Your task to perform on an android device: manage bookmarks in the chrome app Image 0: 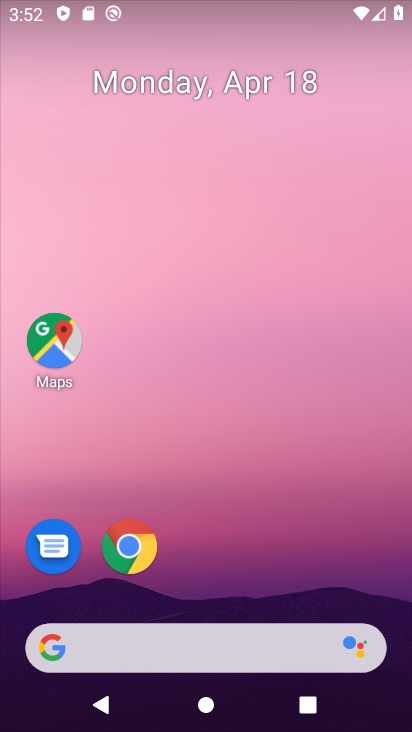
Step 0: drag from (272, 573) to (206, 230)
Your task to perform on an android device: manage bookmarks in the chrome app Image 1: 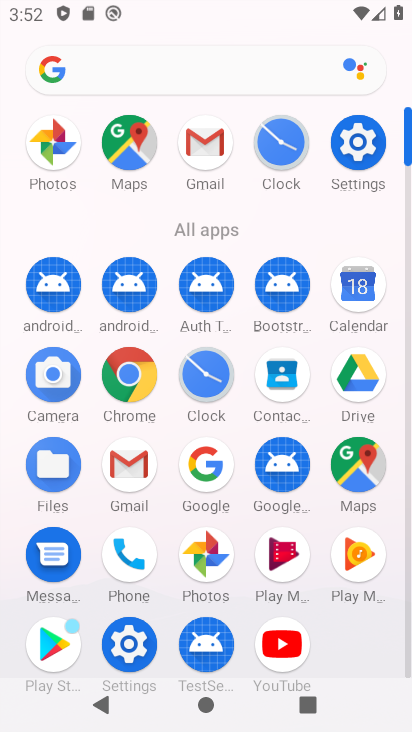
Step 1: click (128, 376)
Your task to perform on an android device: manage bookmarks in the chrome app Image 2: 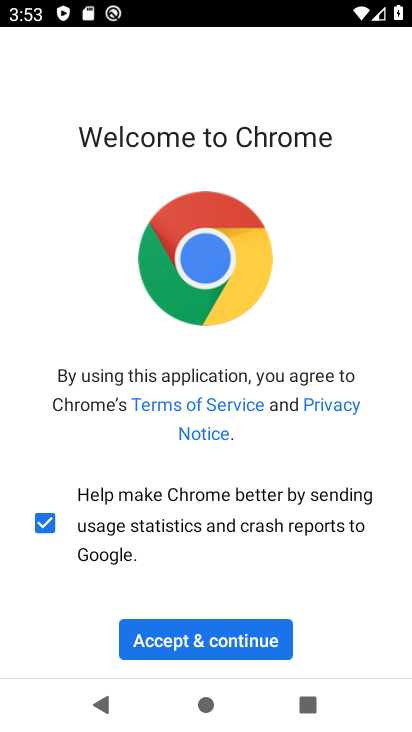
Step 2: click (194, 636)
Your task to perform on an android device: manage bookmarks in the chrome app Image 3: 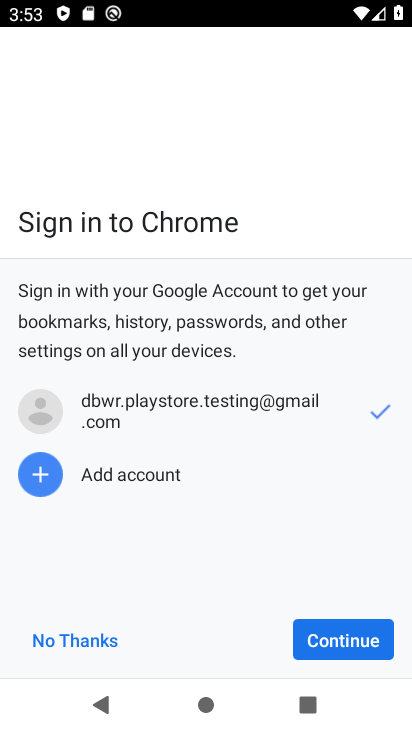
Step 3: click (342, 629)
Your task to perform on an android device: manage bookmarks in the chrome app Image 4: 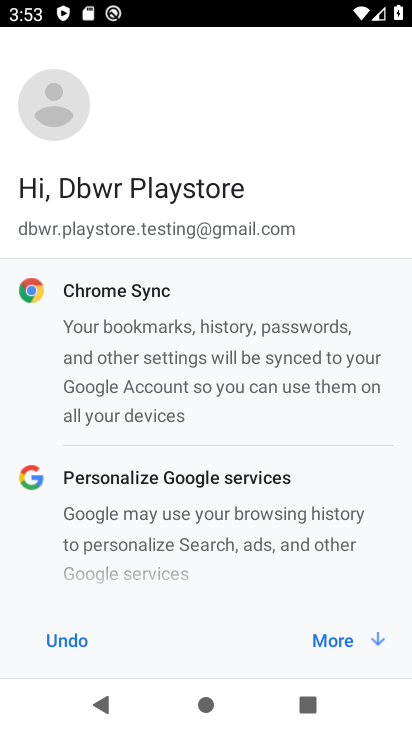
Step 4: click (346, 638)
Your task to perform on an android device: manage bookmarks in the chrome app Image 5: 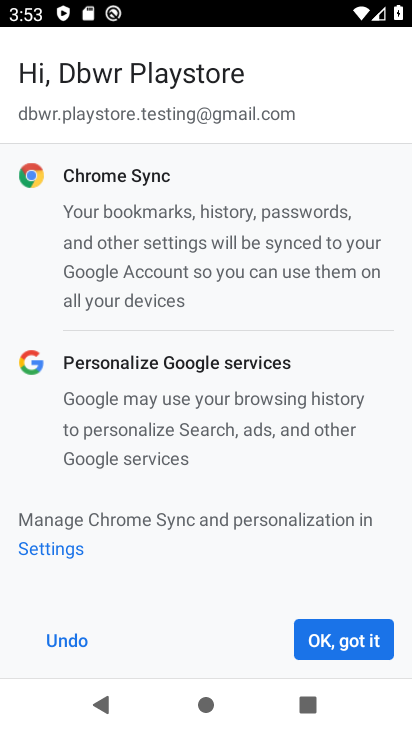
Step 5: click (346, 638)
Your task to perform on an android device: manage bookmarks in the chrome app Image 6: 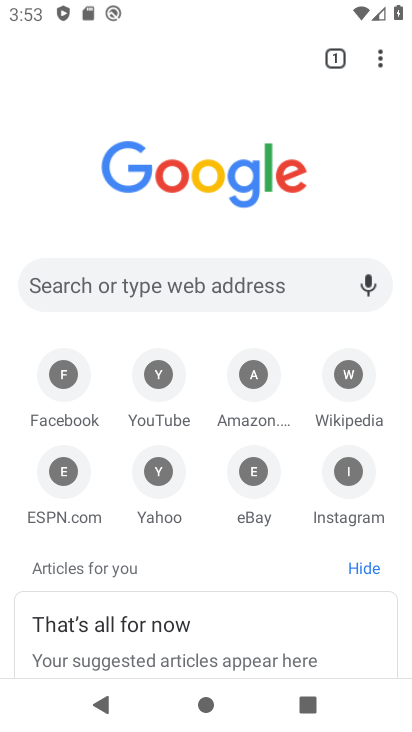
Step 6: click (387, 52)
Your task to perform on an android device: manage bookmarks in the chrome app Image 7: 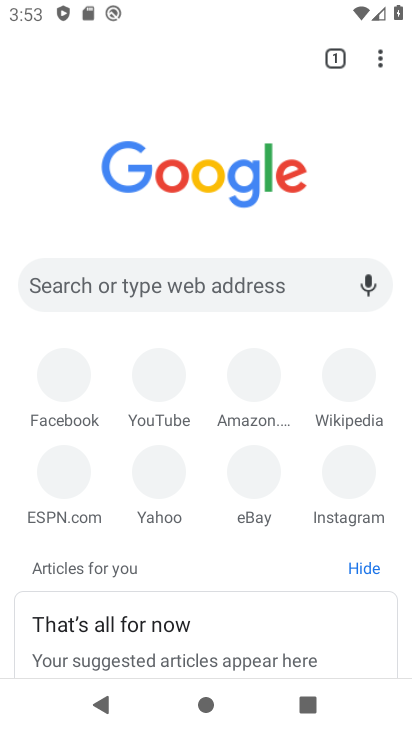
Step 7: click (387, 52)
Your task to perform on an android device: manage bookmarks in the chrome app Image 8: 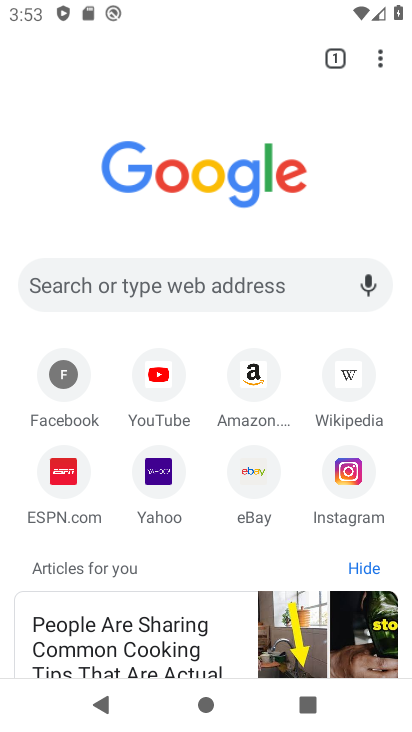
Step 8: click (375, 51)
Your task to perform on an android device: manage bookmarks in the chrome app Image 9: 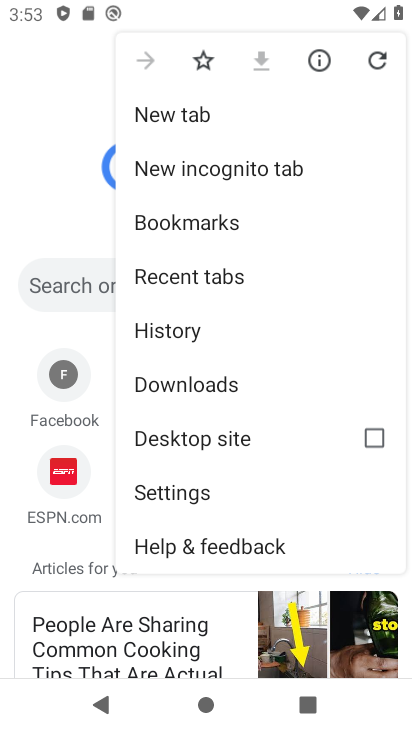
Step 9: click (234, 212)
Your task to perform on an android device: manage bookmarks in the chrome app Image 10: 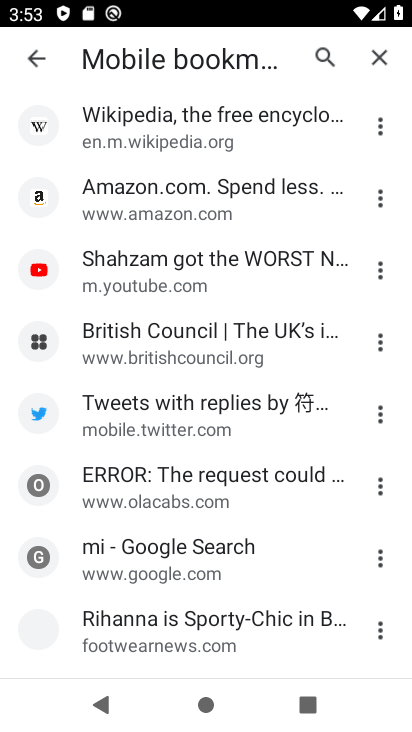
Step 10: click (150, 201)
Your task to perform on an android device: manage bookmarks in the chrome app Image 11: 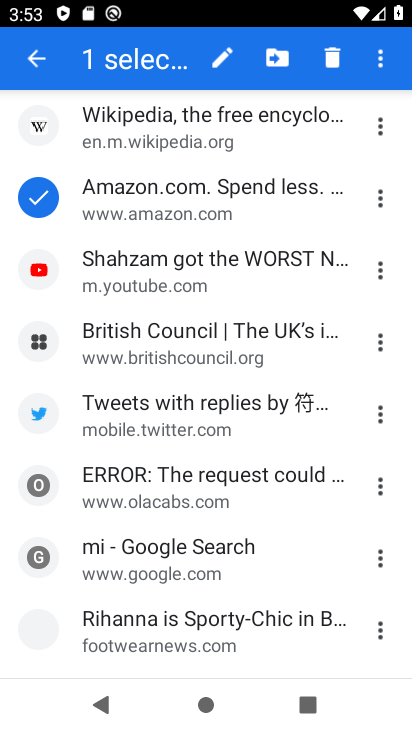
Step 11: click (369, 46)
Your task to perform on an android device: manage bookmarks in the chrome app Image 12: 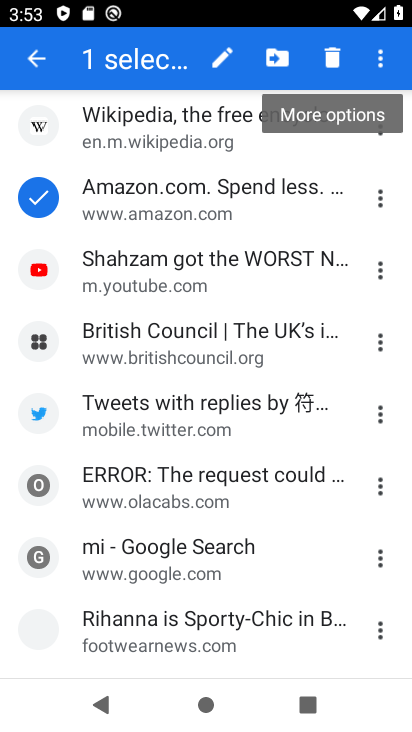
Step 12: click (389, 54)
Your task to perform on an android device: manage bookmarks in the chrome app Image 13: 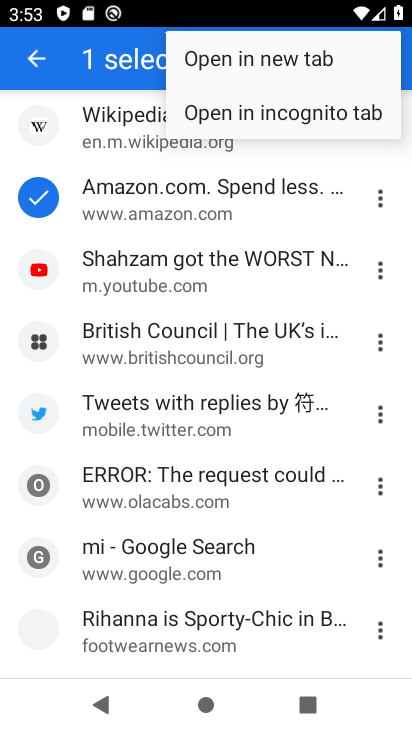
Step 13: click (73, 85)
Your task to perform on an android device: manage bookmarks in the chrome app Image 14: 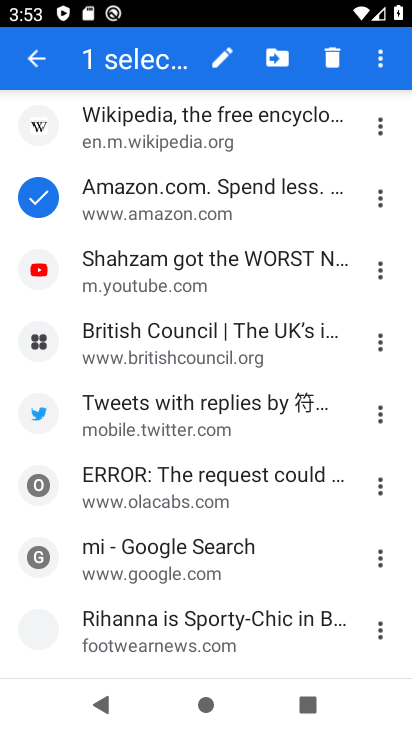
Step 14: click (288, 57)
Your task to perform on an android device: manage bookmarks in the chrome app Image 15: 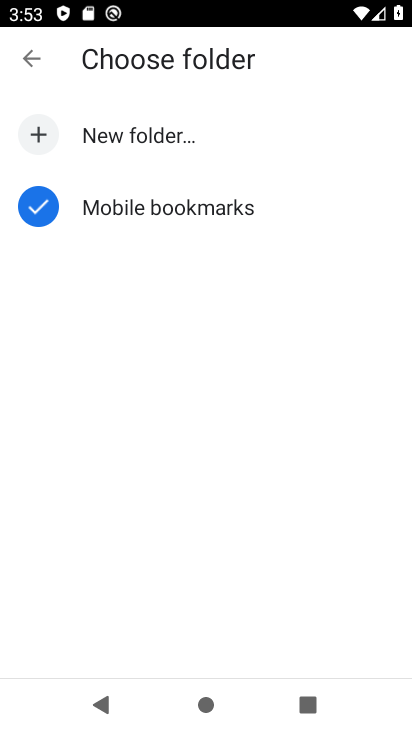
Step 15: click (128, 139)
Your task to perform on an android device: manage bookmarks in the chrome app Image 16: 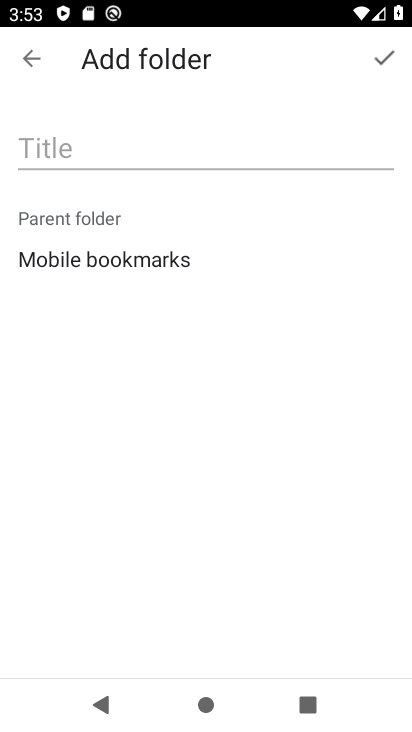
Step 16: click (311, 158)
Your task to perform on an android device: manage bookmarks in the chrome app Image 17: 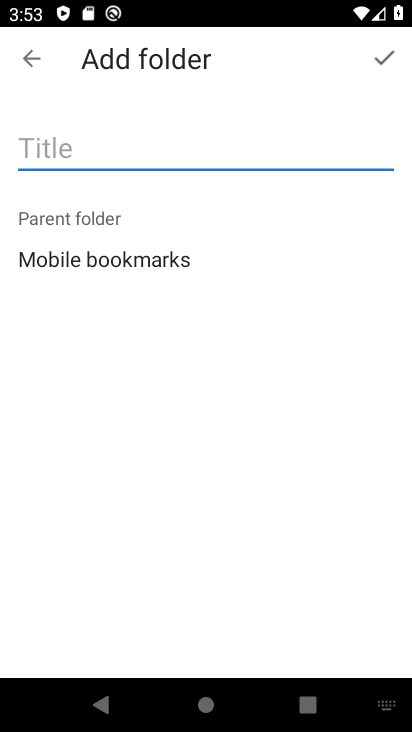
Step 17: type "kkkkkk"
Your task to perform on an android device: manage bookmarks in the chrome app Image 18: 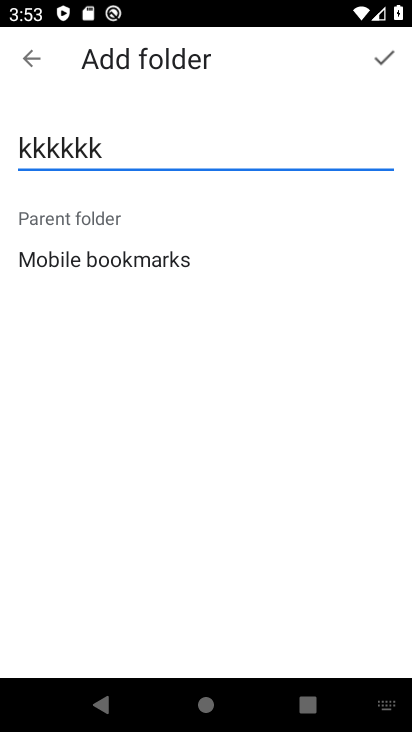
Step 18: click (394, 68)
Your task to perform on an android device: manage bookmarks in the chrome app Image 19: 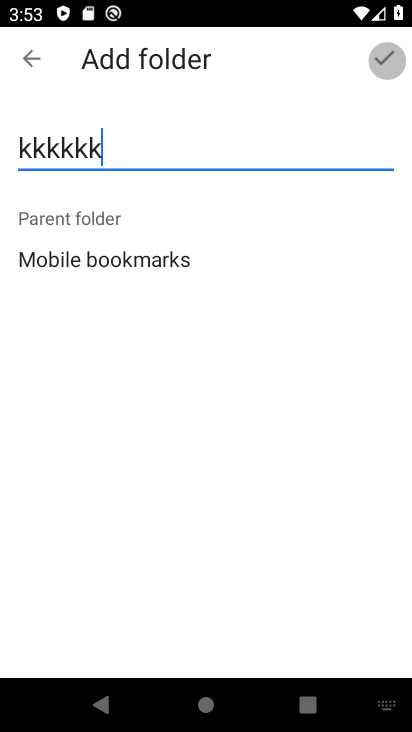
Step 19: click (376, 54)
Your task to perform on an android device: manage bookmarks in the chrome app Image 20: 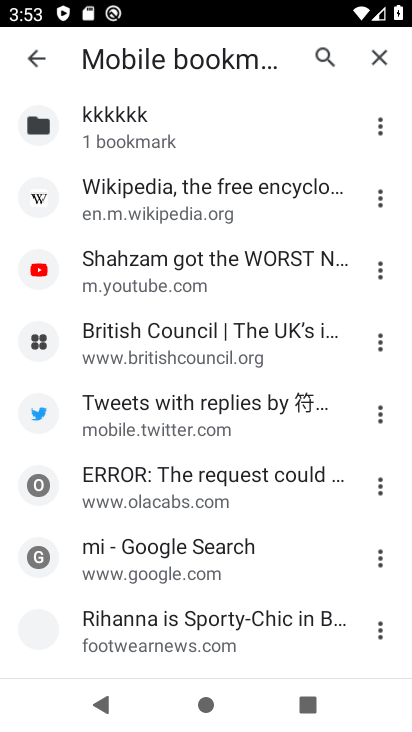
Step 20: task complete